Your task to perform on an android device: Search for vegetarian restaurants on Maps Image 0: 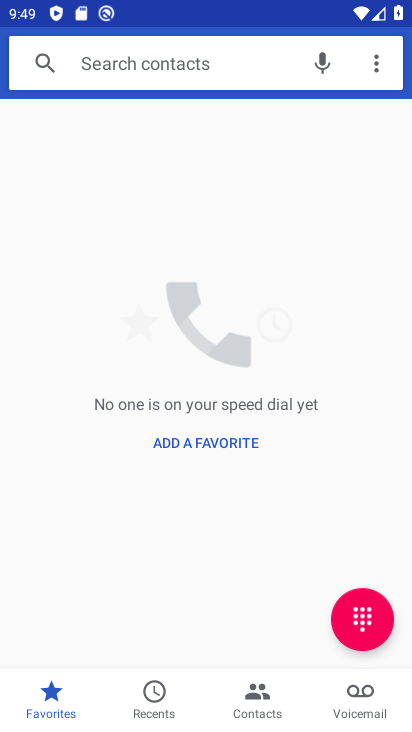
Step 0: press home button
Your task to perform on an android device: Search for vegetarian restaurants on Maps Image 1: 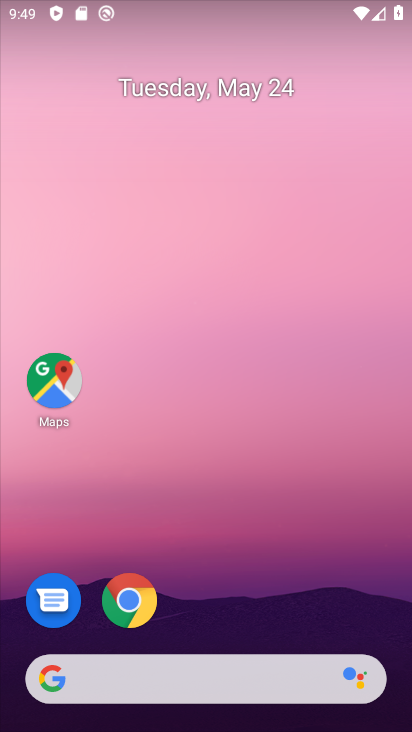
Step 1: click (49, 367)
Your task to perform on an android device: Search for vegetarian restaurants on Maps Image 2: 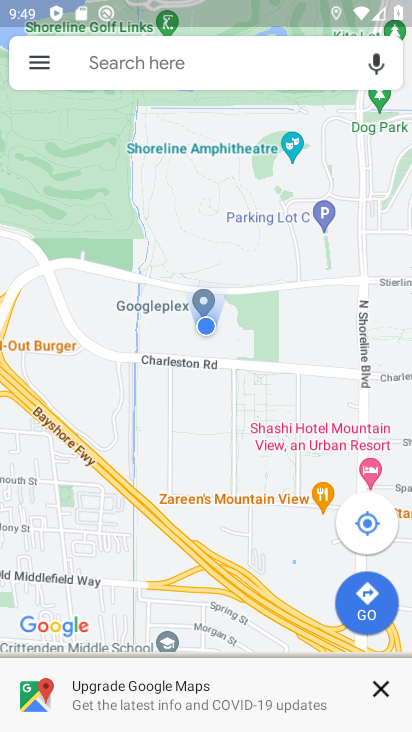
Step 2: click (211, 72)
Your task to perform on an android device: Search for vegetarian restaurants on Maps Image 3: 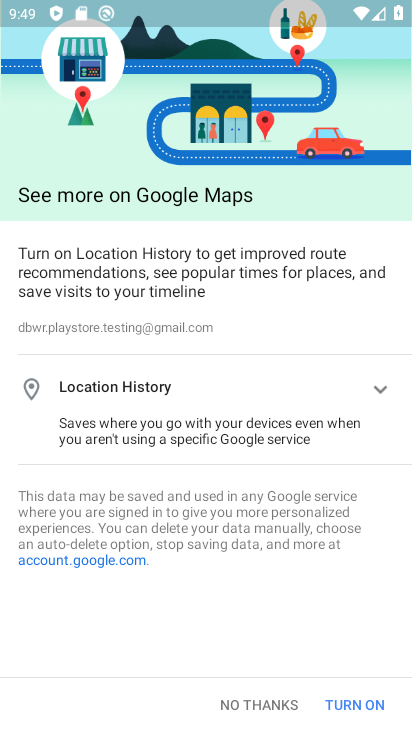
Step 3: click (249, 694)
Your task to perform on an android device: Search for vegetarian restaurants on Maps Image 4: 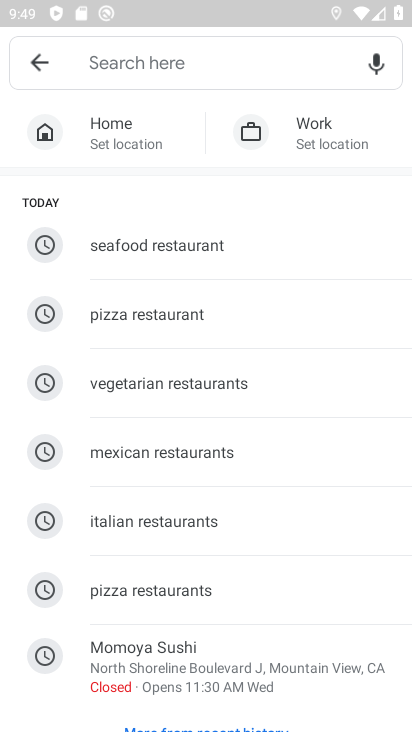
Step 4: click (126, 382)
Your task to perform on an android device: Search for vegetarian restaurants on Maps Image 5: 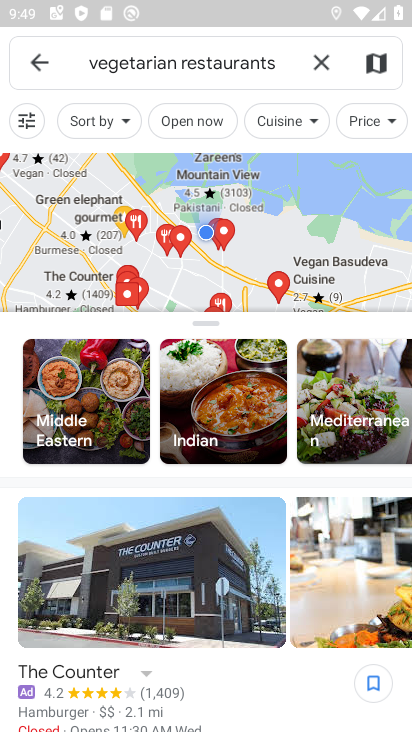
Step 5: task complete